Your task to perform on an android device: open wifi settings Image 0: 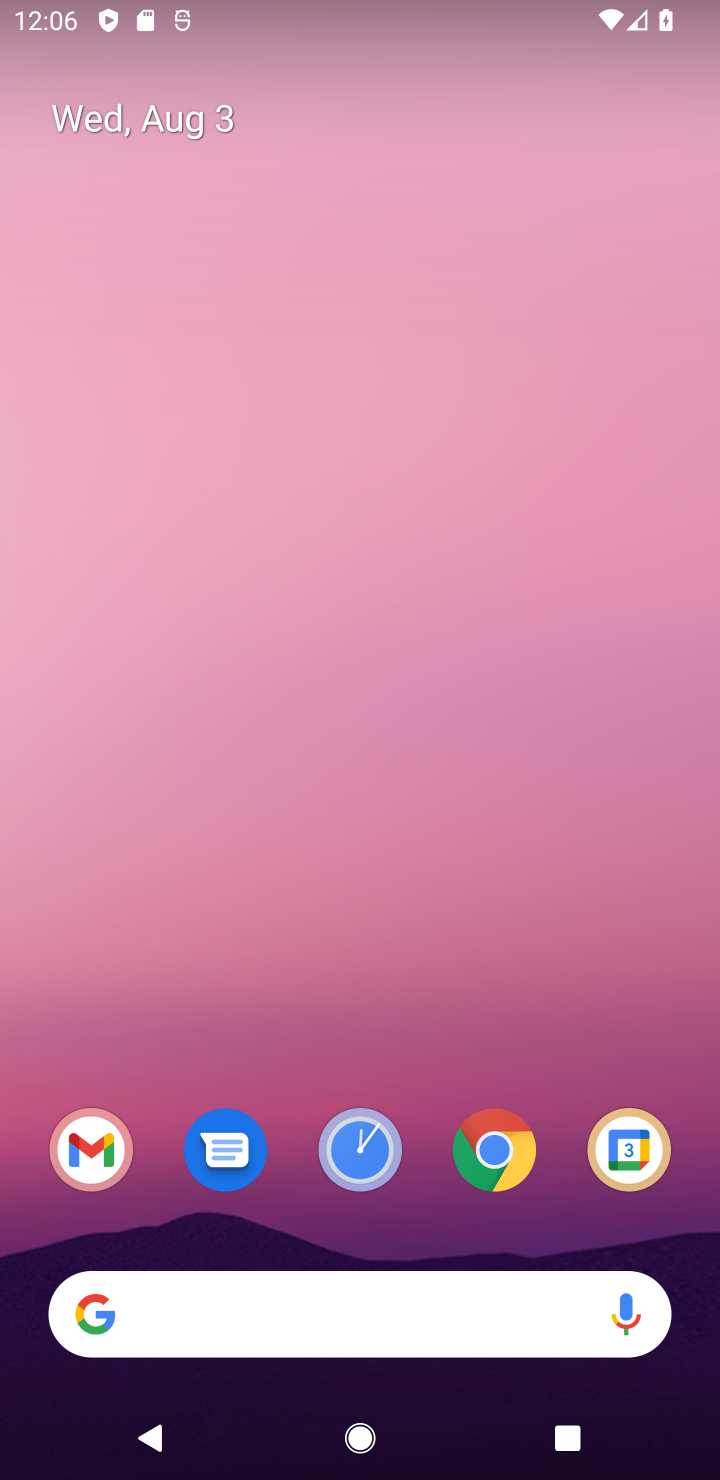
Step 0: press home button
Your task to perform on an android device: open wifi settings Image 1: 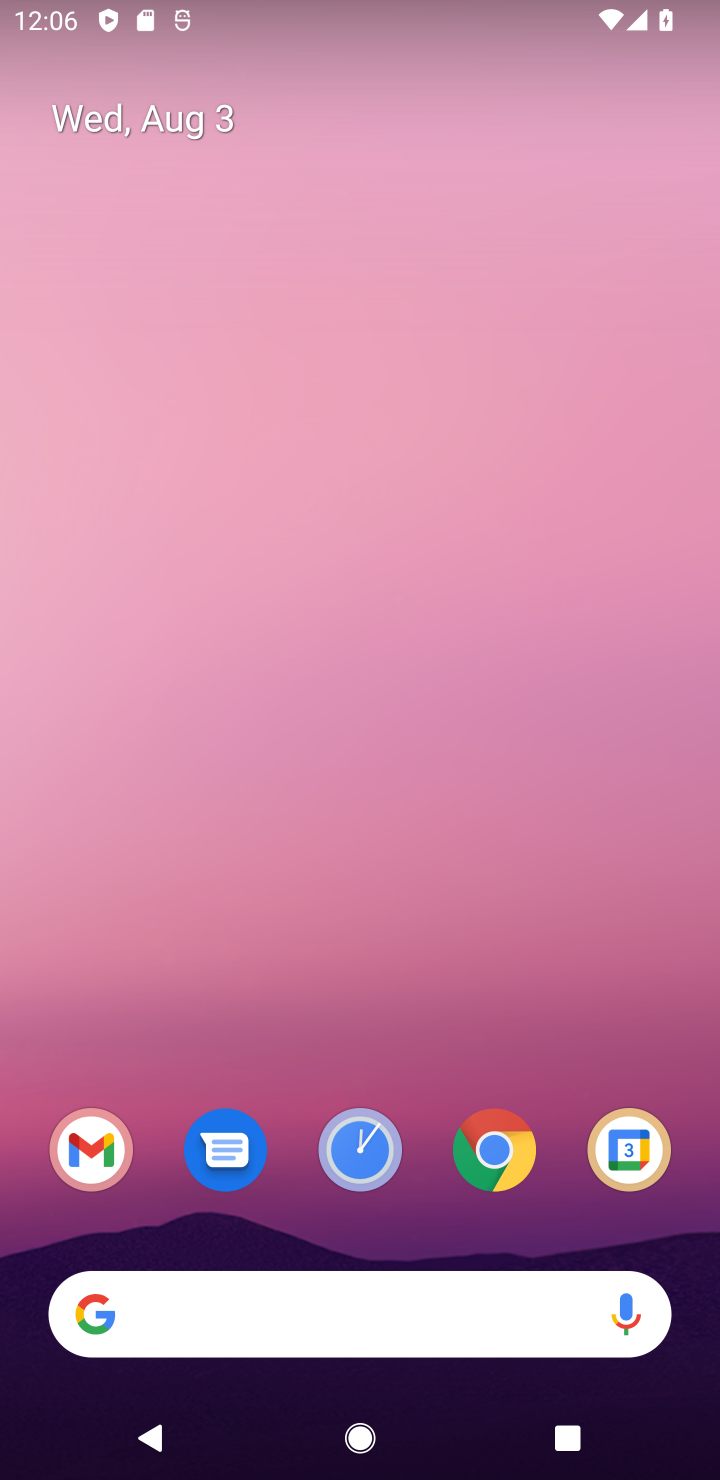
Step 1: drag from (548, 919) to (568, 235)
Your task to perform on an android device: open wifi settings Image 2: 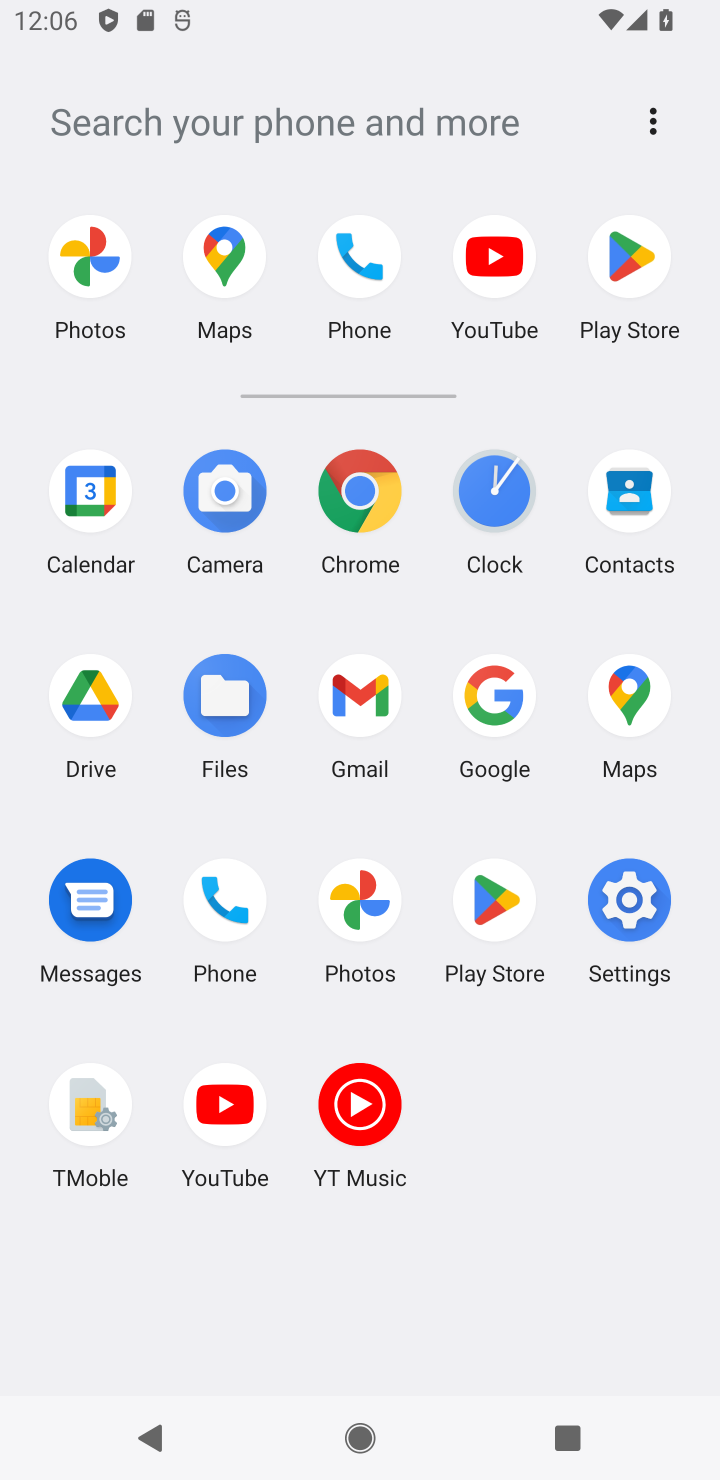
Step 2: click (636, 913)
Your task to perform on an android device: open wifi settings Image 3: 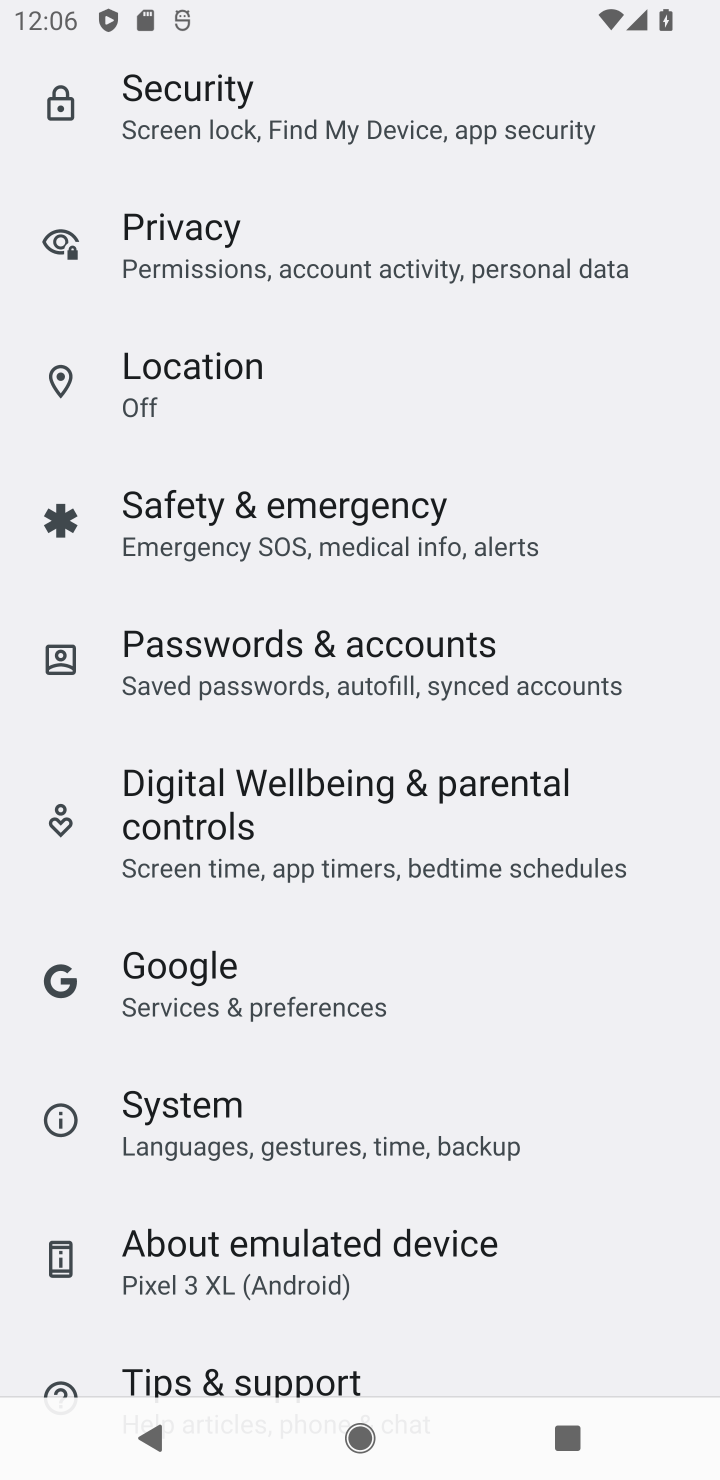
Step 3: drag from (600, 1212) to (610, 903)
Your task to perform on an android device: open wifi settings Image 4: 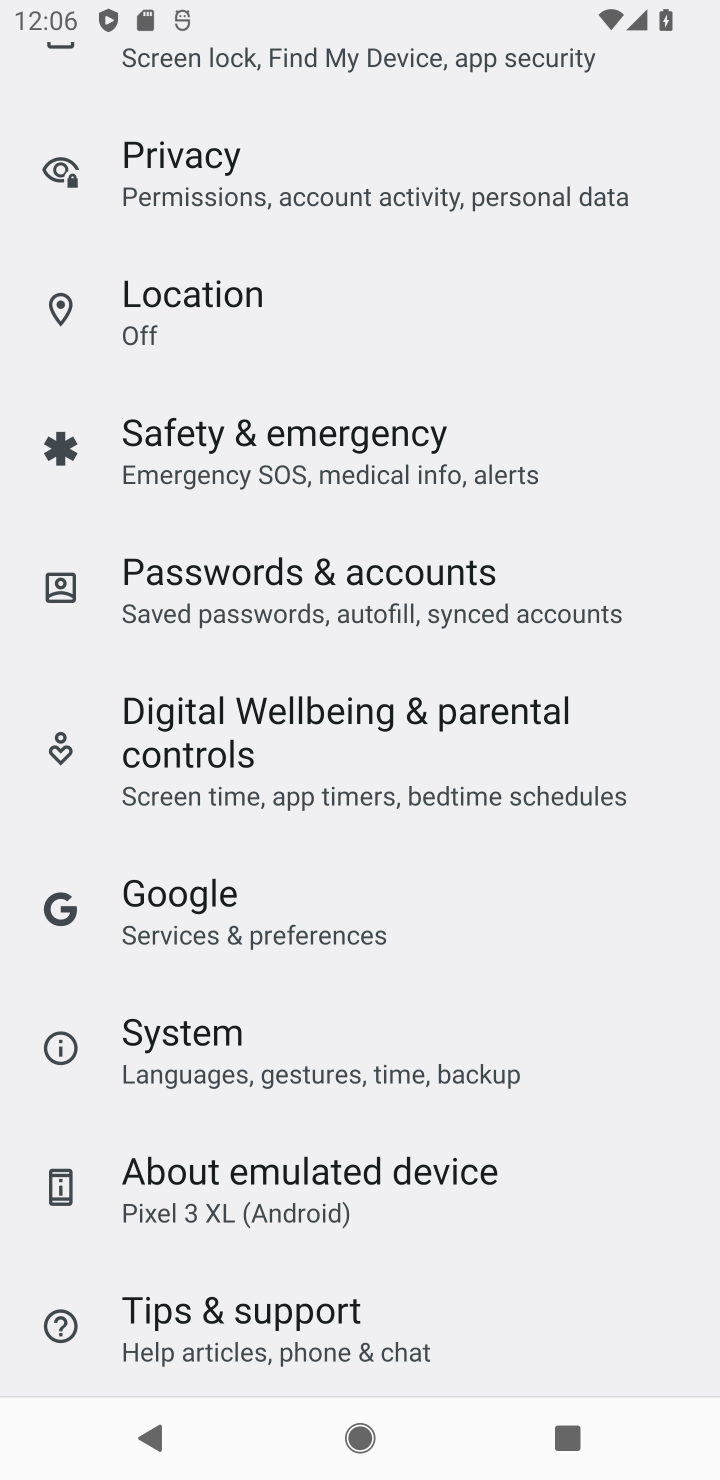
Step 4: drag from (580, 1207) to (621, 873)
Your task to perform on an android device: open wifi settings Image 5: 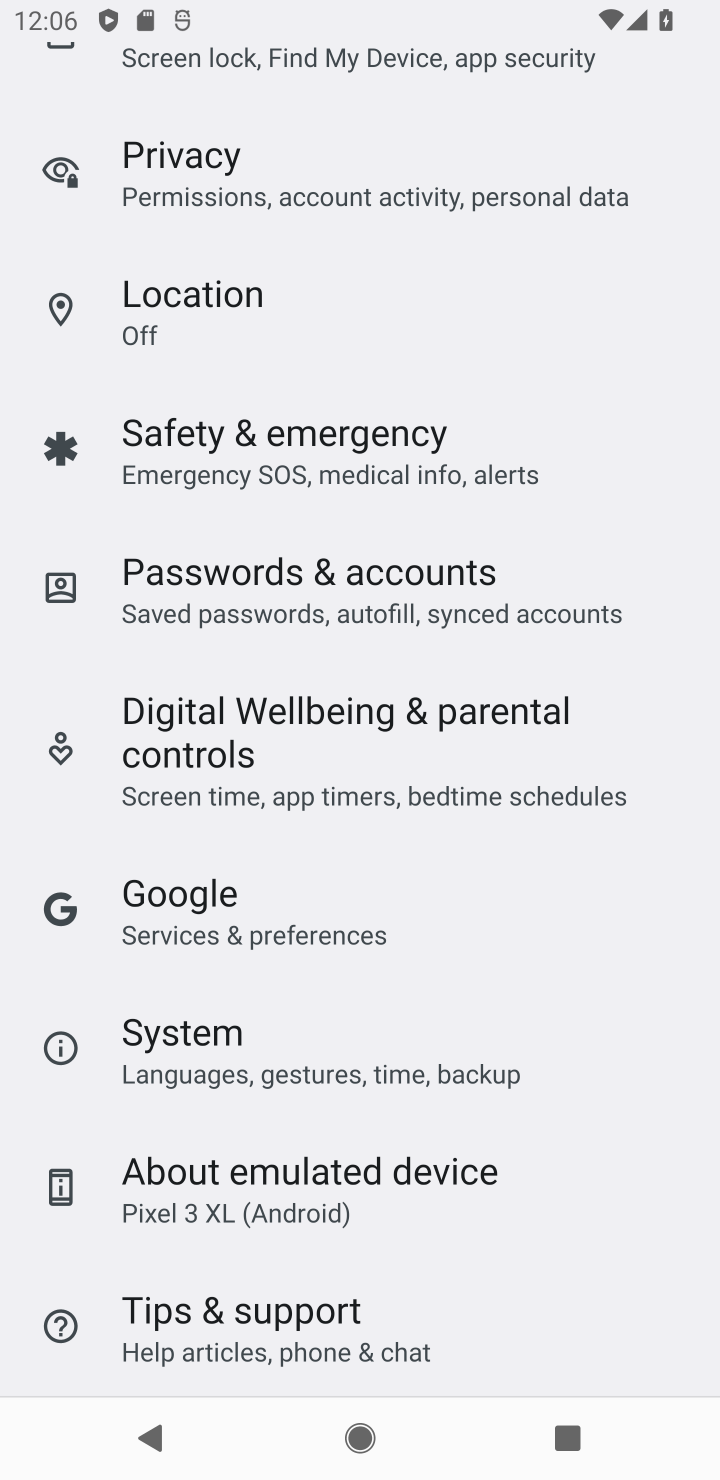
Step 5: drag from (593, 929) to (598, 1159)
Your task to perform on an android device: open wifi settings Image 6: 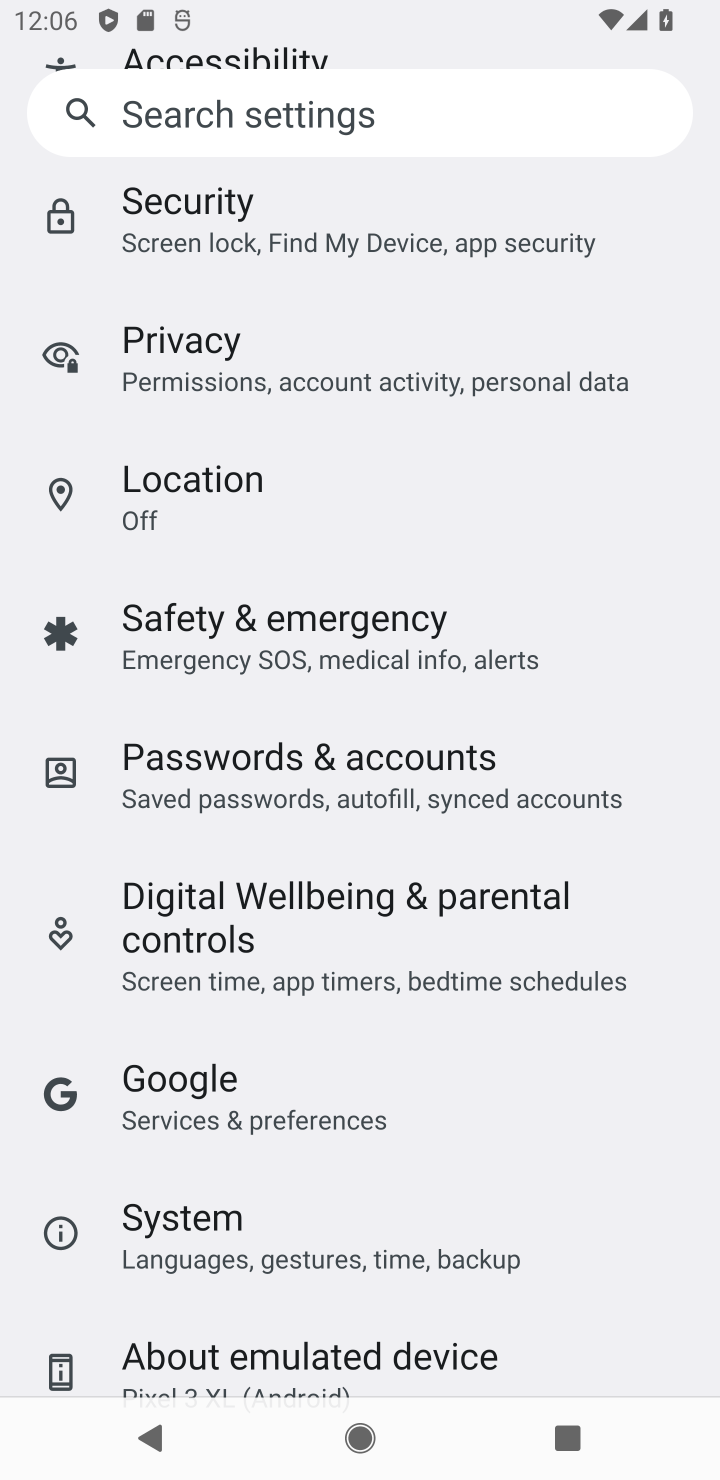
Step 6: drag from (657, 626) to (663, 1094)
Your task to perform on an android device: open wifi settings Image 7: 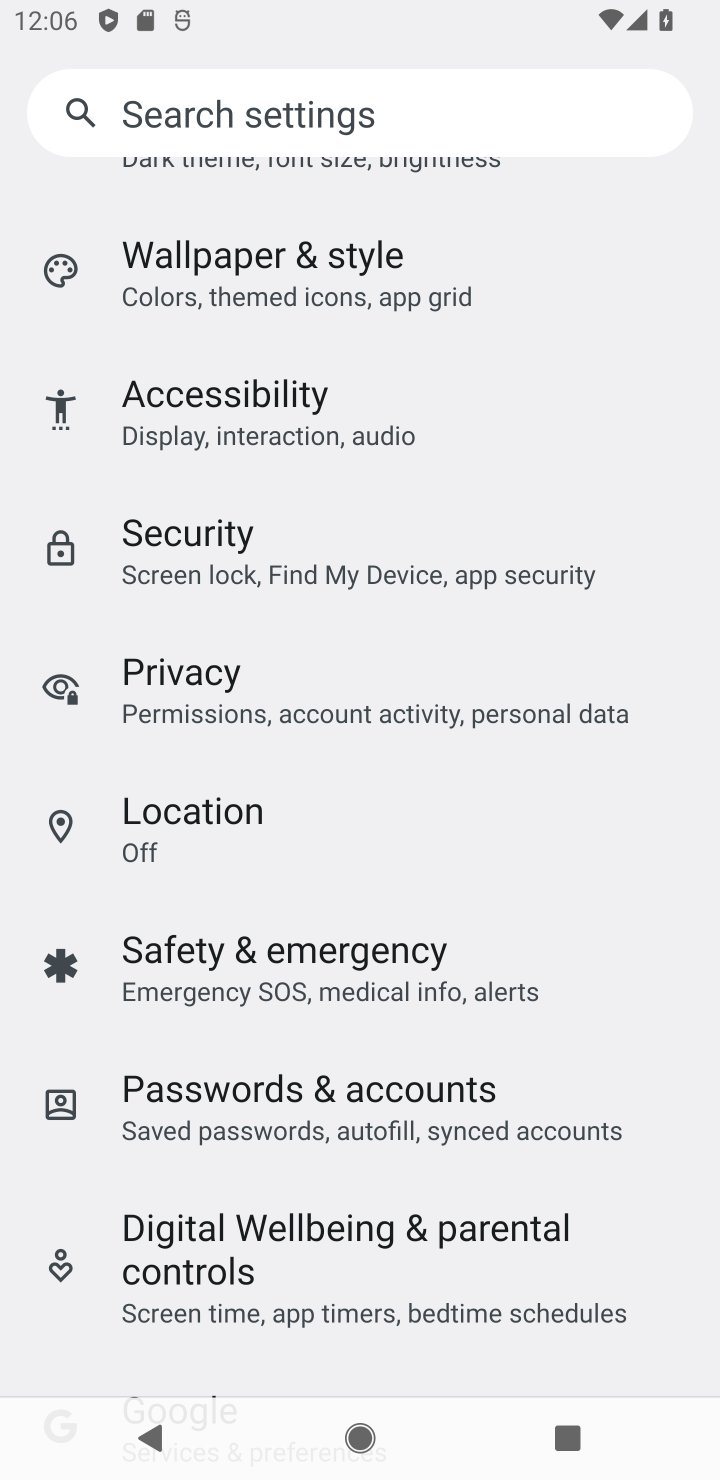
Step 7: drag from (631, 512) to (645, 932)
Your task to perform on an android device: open wifi settings Image 8: 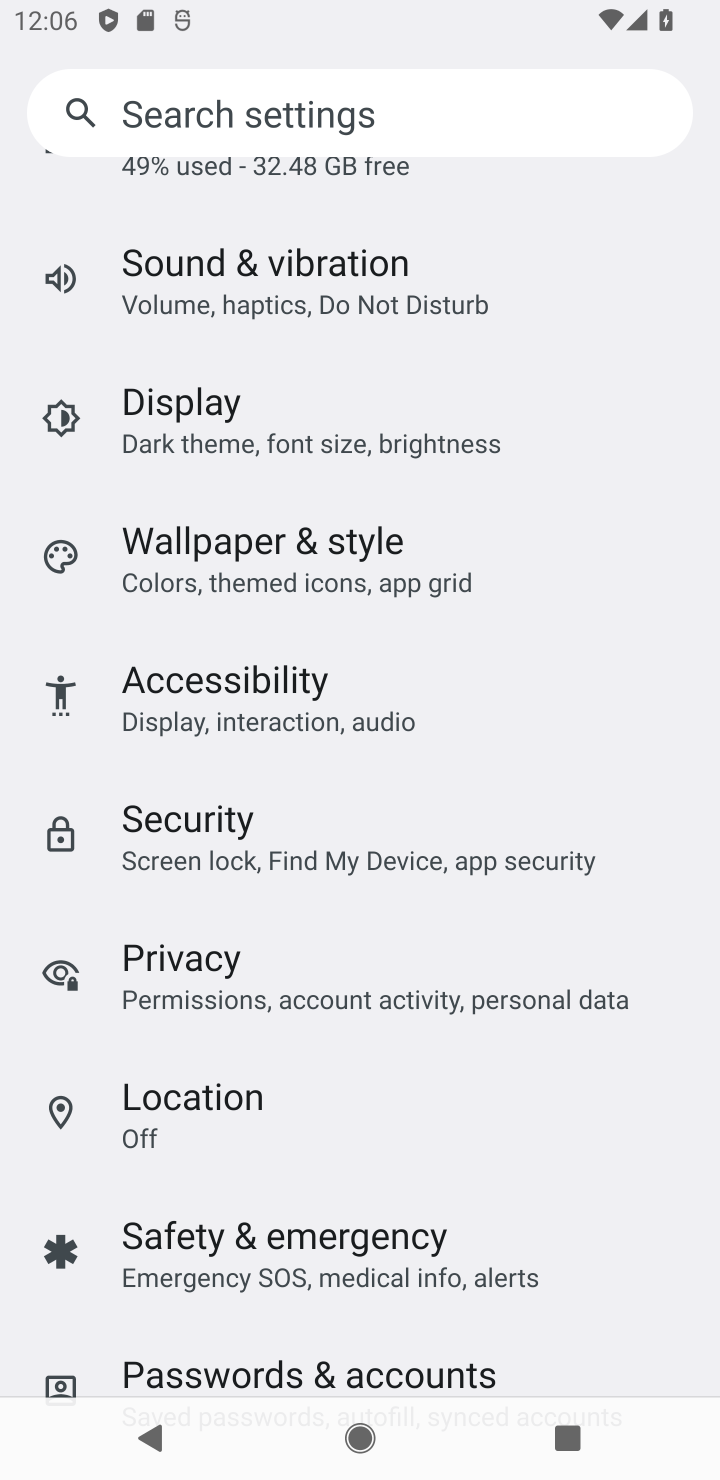
Step 8: drag from (639, 412) to (645, 800)
Your task to perform on an android device: open wifi settings Image 9: 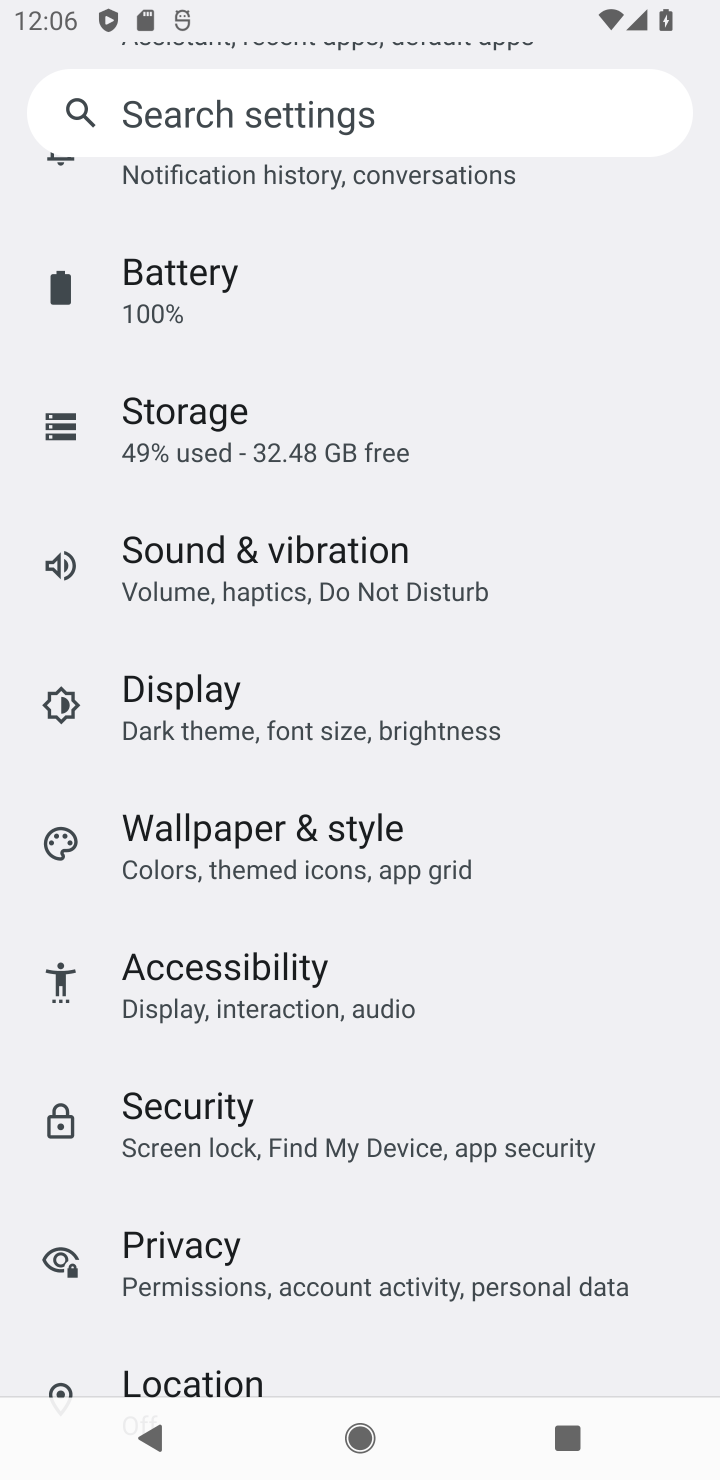
Step 9: drag from (630, 278) to (626, 642)
Your task to perform on an android device: open wifi settings Image 10: 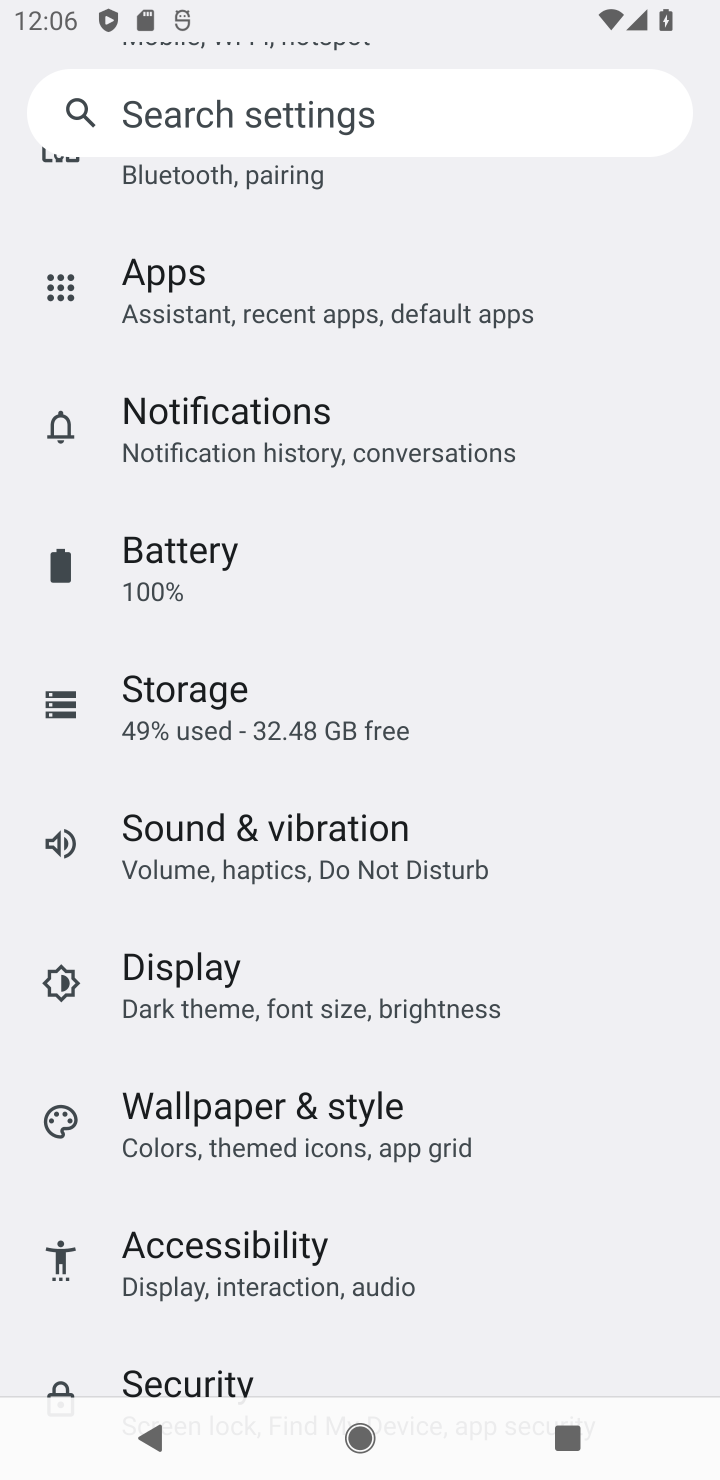
Step 10: drag from (620, 299) to (625, 754)
Your task to perform on an android device: open wifi settings Image 11: 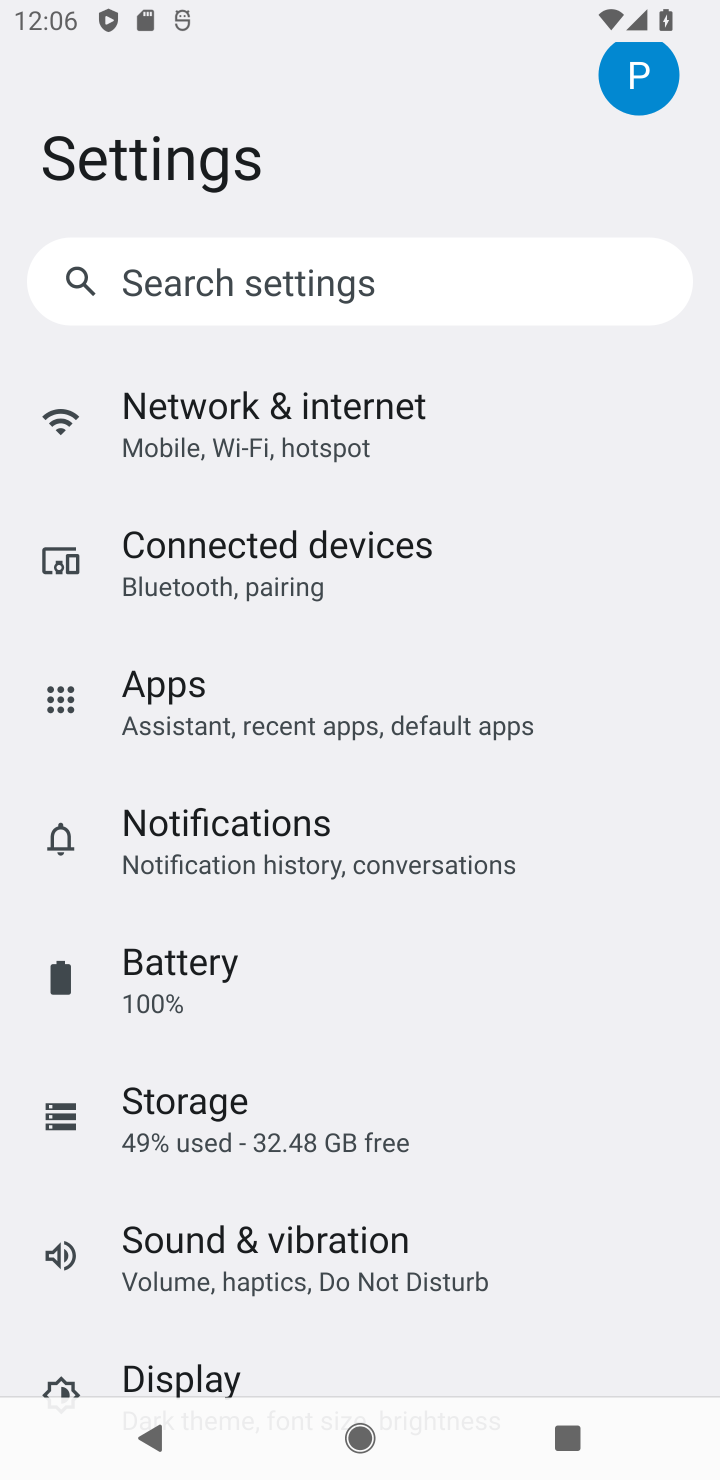
Step 11: click (459, 433)
Your task to perform on an android device: open wifi settings Image 12: 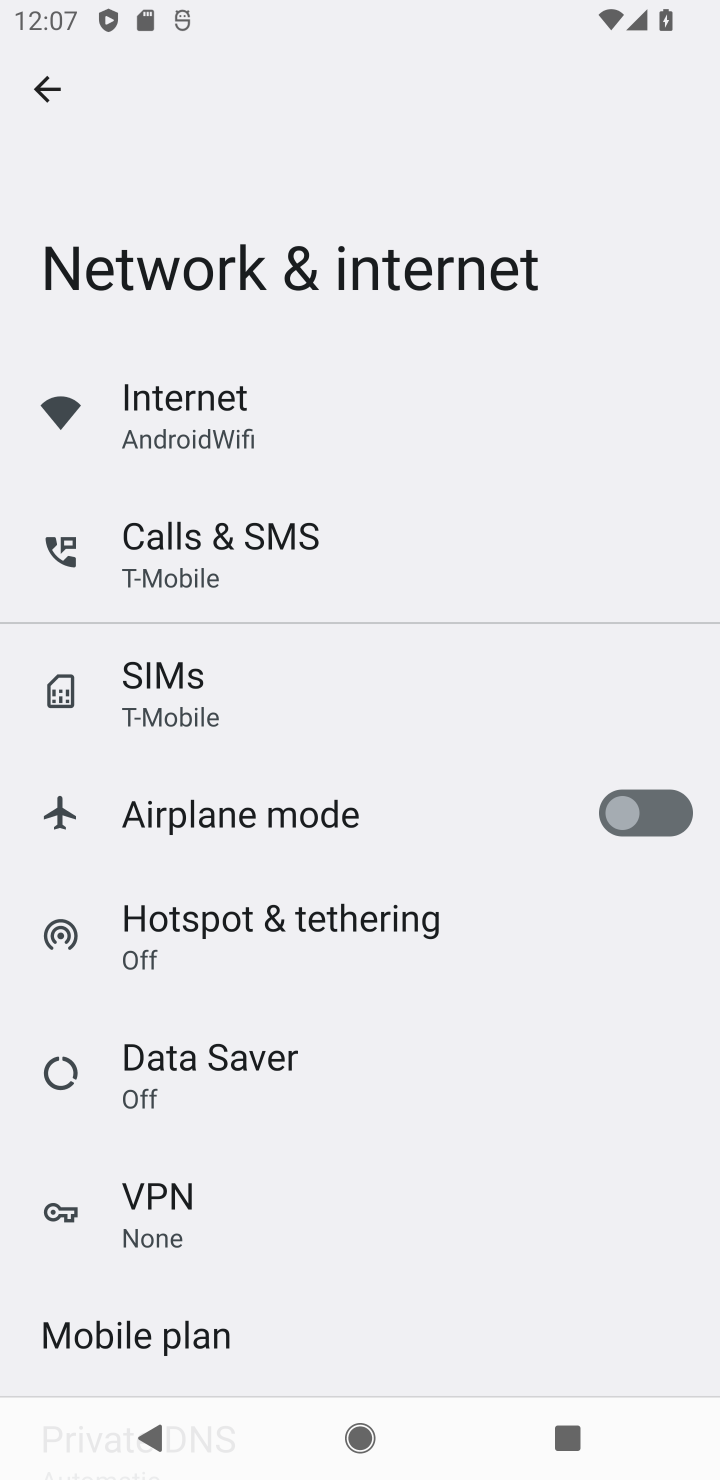
Step 12: click (204, 385)
Your task to perform on an android device: open wifi settings Image 13: 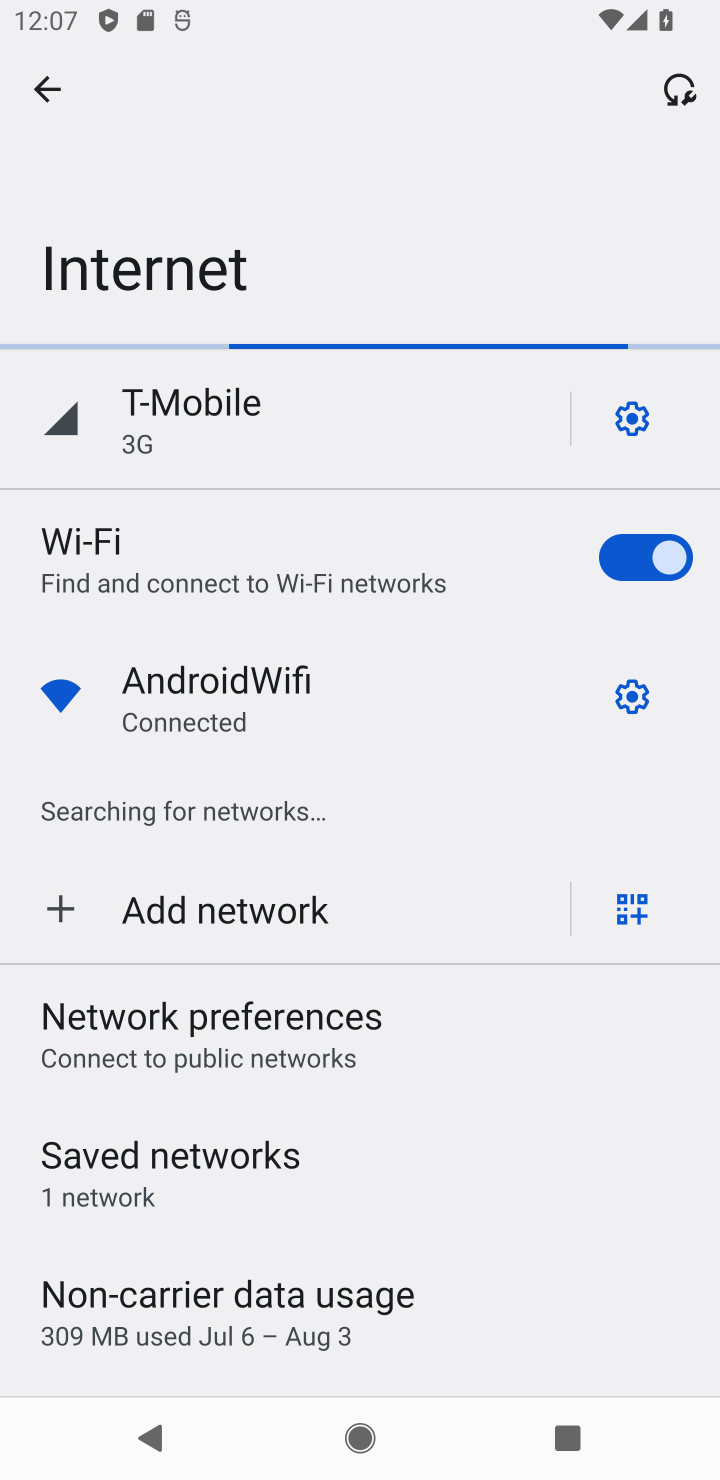
Step 13: task complete